Your task to perform on an android device: See recent photos Image 0: 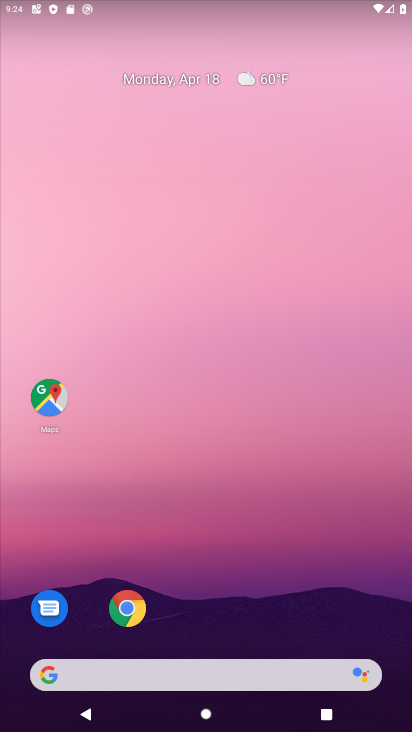
Step 0: drag from (365, 571) to (343, 146)
Your task to perform on an android device: See recent photos Image 1: 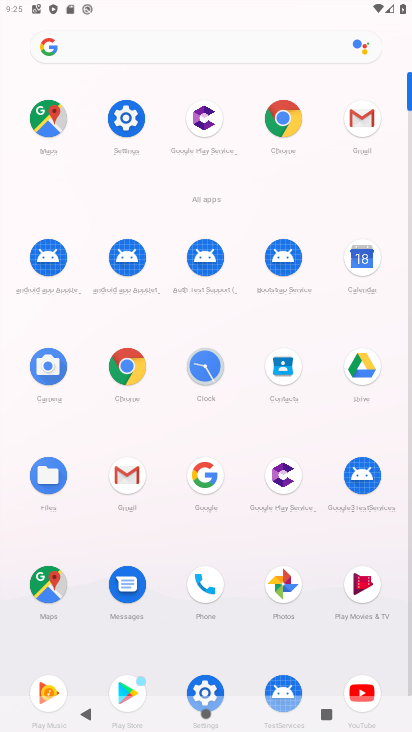
Step 1: click (275, 584)
Your task to perform on an android device: See recent photos Image 2: 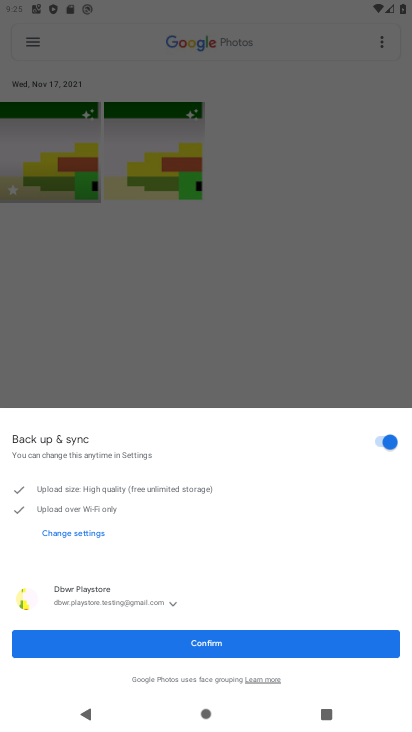
Step 2: click (252, 647)
Your task to perform on an android device: See recent photos Image 3: 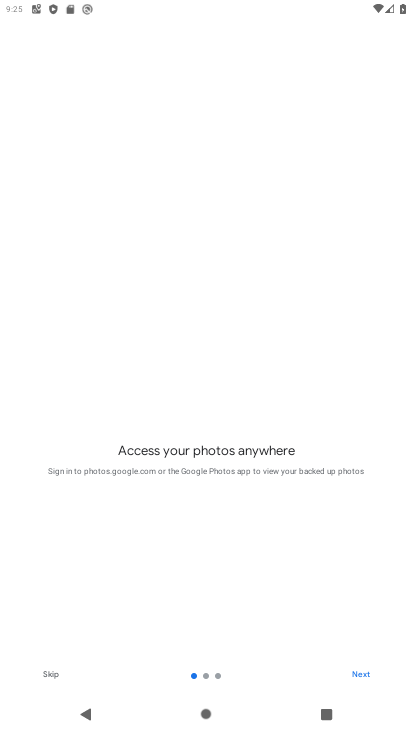
Step 3: click (362, 667)
Your task to perform on an android device: See recent photos Image 4: 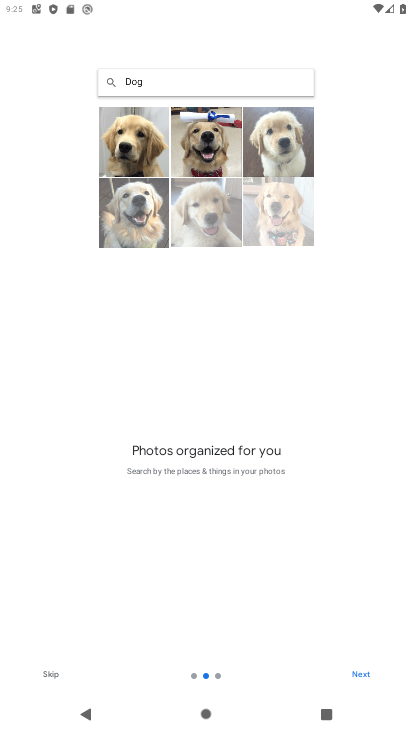
Step 4: click (359, 673)
Your task to perform on an android device: See recent photos Image 5: 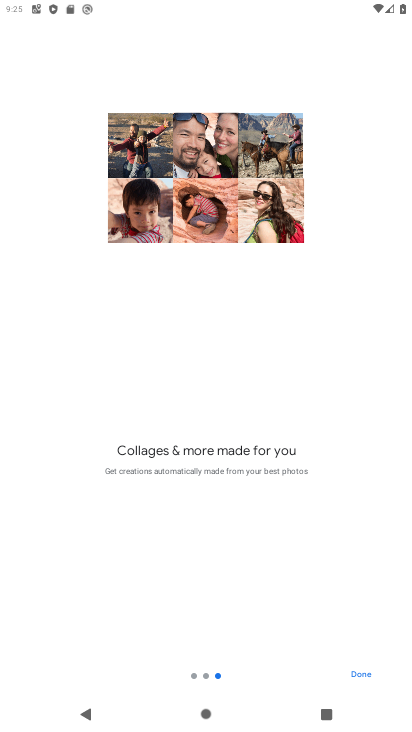
Step 5: click (362, 669)
Your task to perform on an android device: See recent photos Image 6: 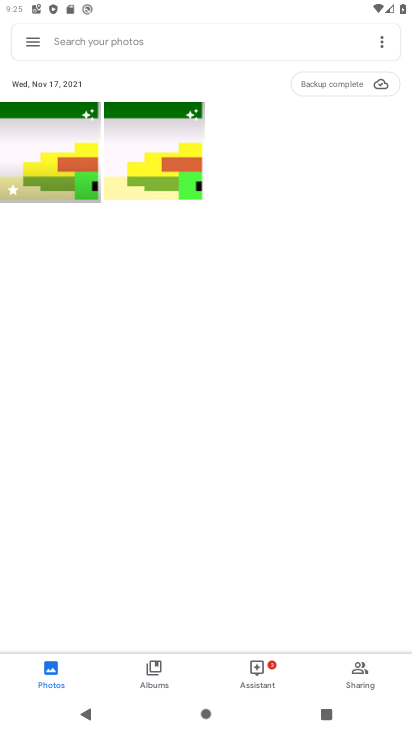
Step 6: click (39, 150)
Your task to perform on an android device: See recent photos Image 7: 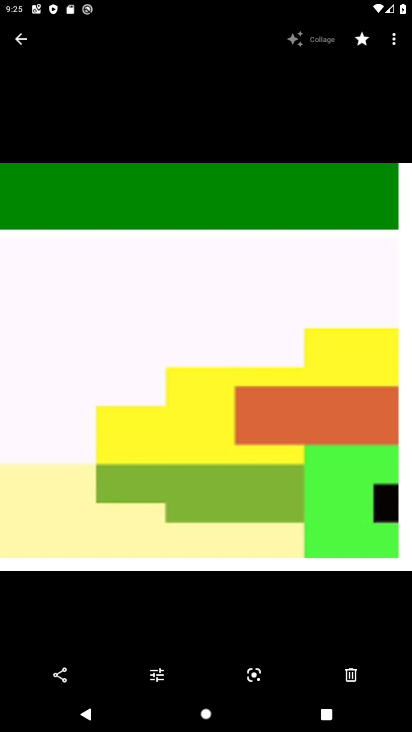
Step 7: press back button
Your task to perform on an android device: See recent photos Image 8: 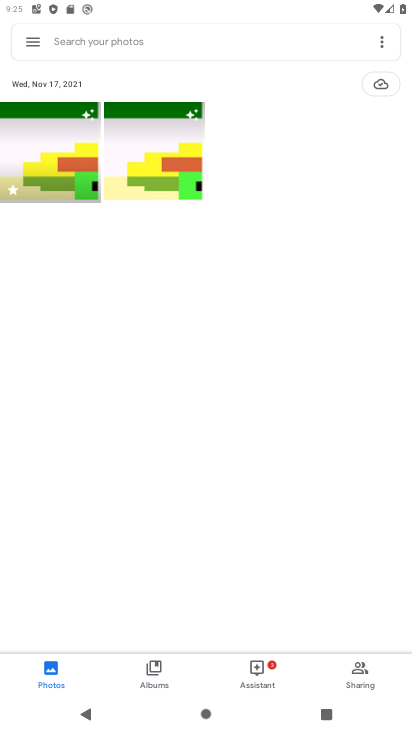
Step 8: click (122, 140)
Your task to perform on an android device: See recent photos Image 9: 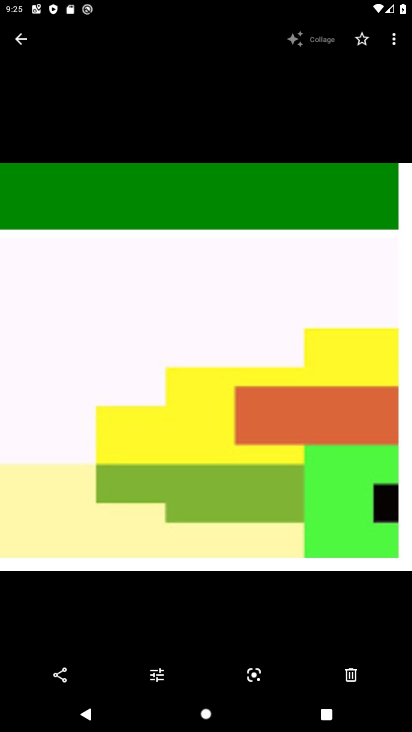
Step 9: task complete